Your task to perform on an android device: Is it going to rain today? Image 0: 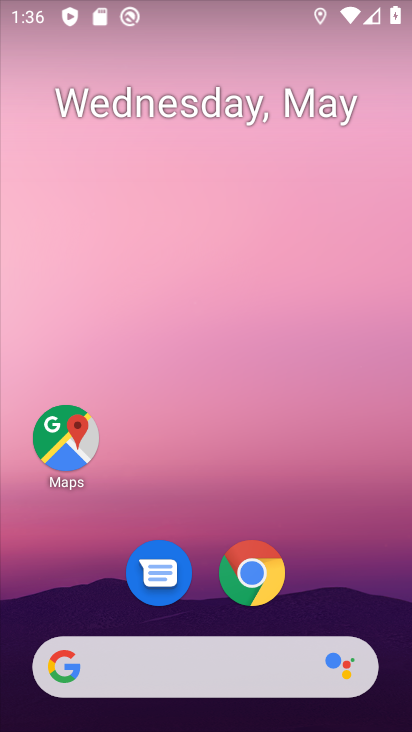
Step 0: click (228, 666)
Your task to perform on an android device: Is it going to rain today? Image 1: 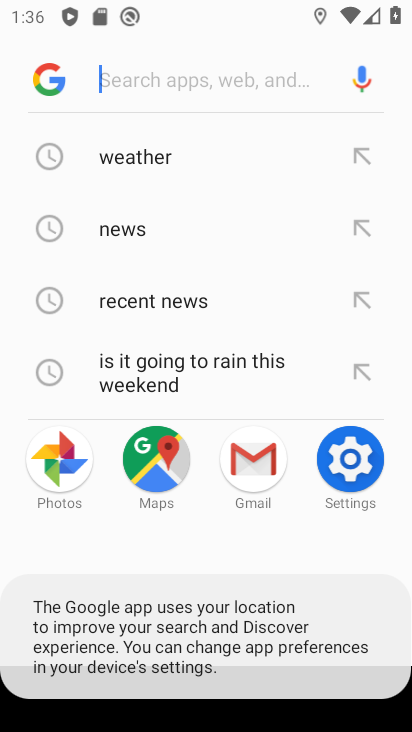
Step 1: click (212, 162)
Your task to perform on an android device: Is it going to rain today? Image 2: 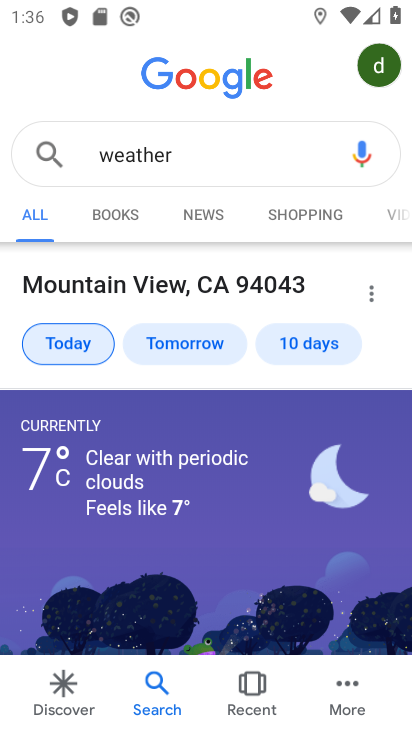
Step 2: task complete